Your task to perform on an android device: Open eBay Image 0: 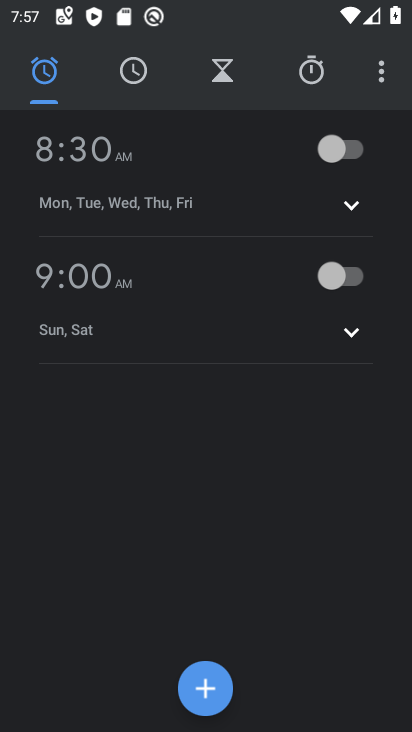
Step 0: press home button
Your task to perform on an android device: Open eBay Image 1: 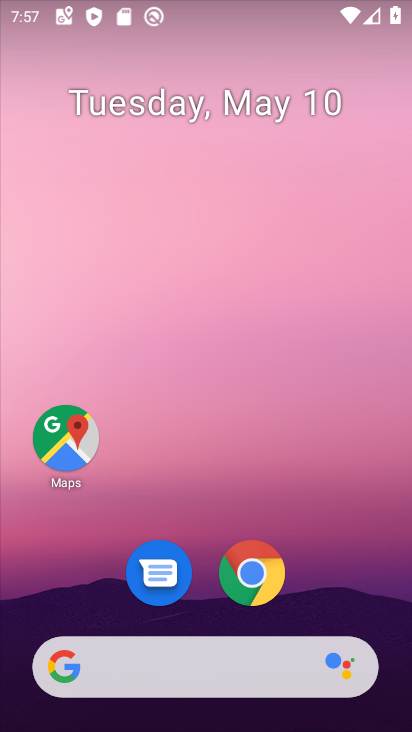
Step 1: drag from (325, 581) to (368, 161)
Your task to perform on an android device: Open eBay Image 2: 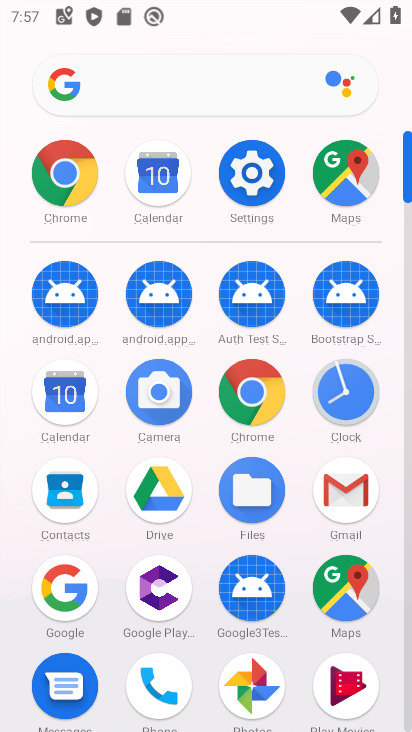
Step 2: click (62, 195)
Your task to perform on an android device: Open eBay Image 3: 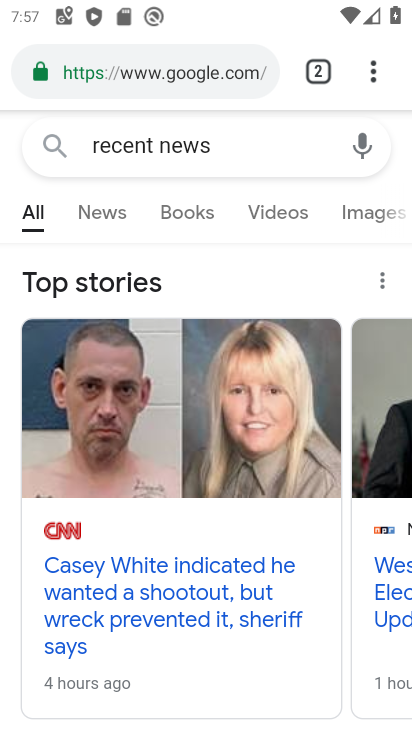
Step 3: click (145, 68)
Your task to perform on an android device: Open eBay Image 4: 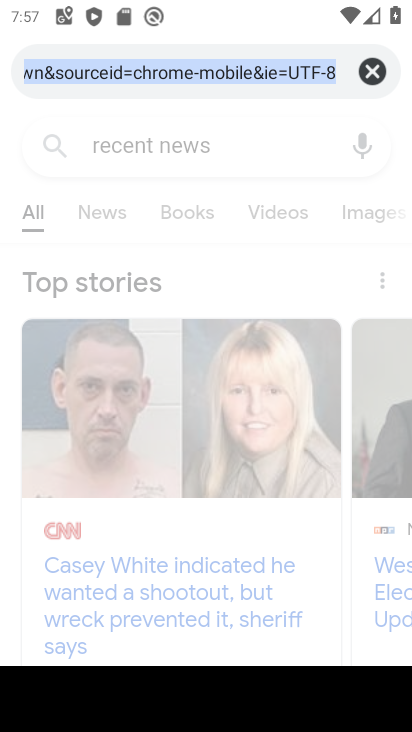
Step 4: click (375, 83)
Your task to perform on an android device: Open eBay Image 5: 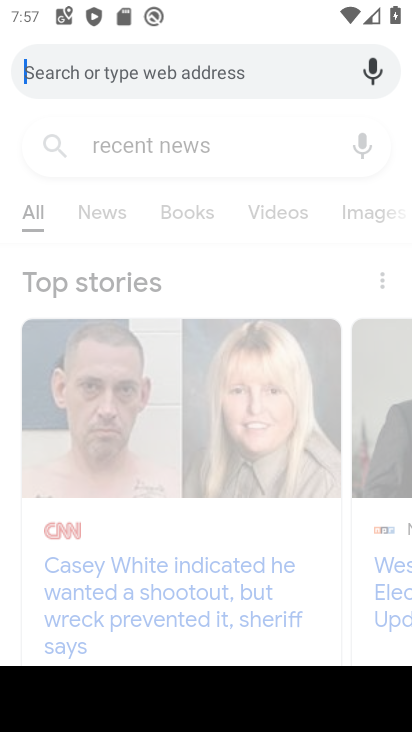
Step 5: type "ebay"
Your task to perform on an android device: Open eBay Image 6: 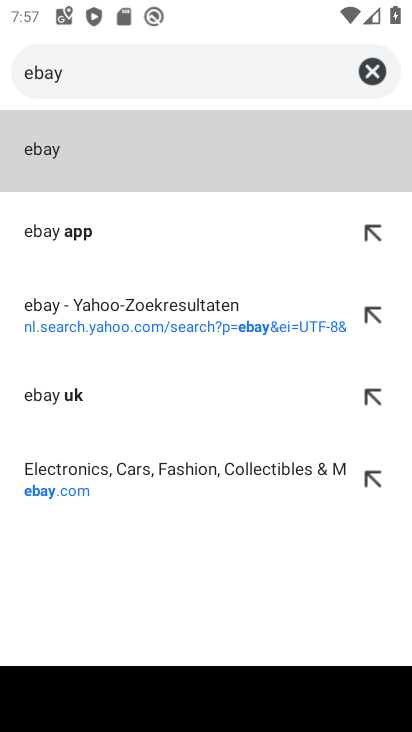
Step 6: click (153, 182)
Your task to perform on an android device: Open eBay Image 7: 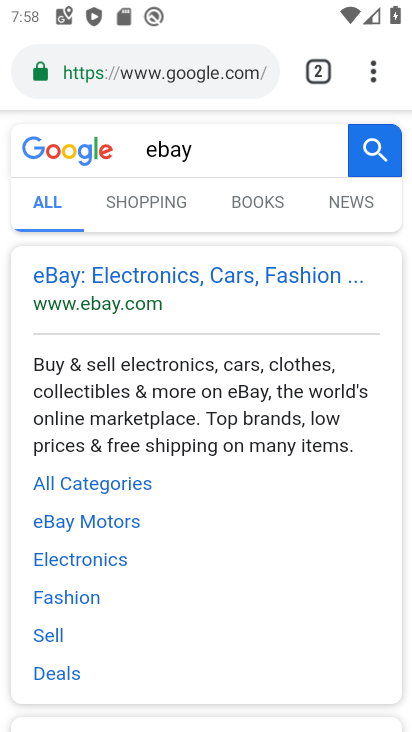
Step 7: click (98, 288)
Your task to perform on an android device: Open eBay Image 8: 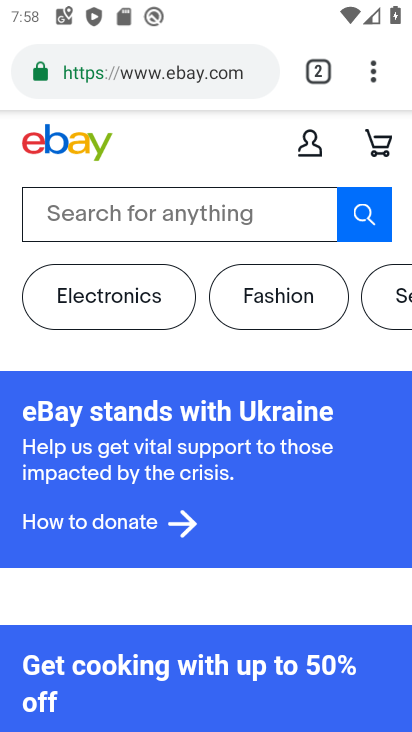
Step 8: task complete